Your task to perform on an android device: turn on airplane mode Image 0: 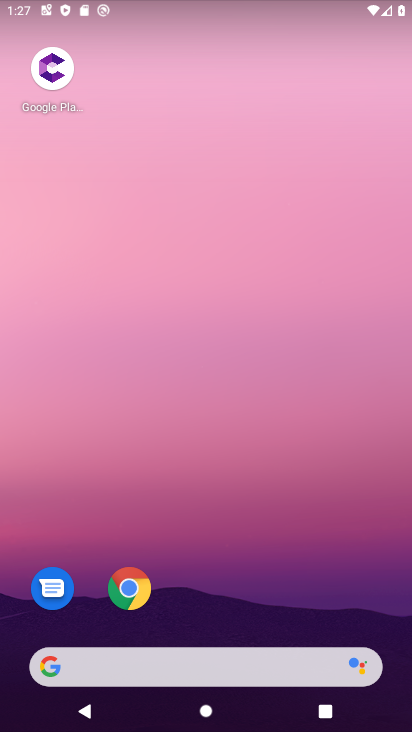
Step 0: drag from (266, 530) to (271, 80)
Your task to perform on an android device: turn on airplane mode Image 1: 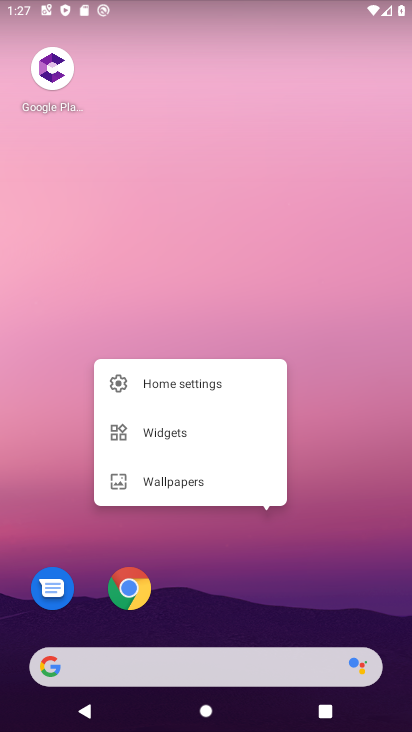
Step 1: click (271, 85)
Your task to perform on an android device: turn on airplane mode Image 2: 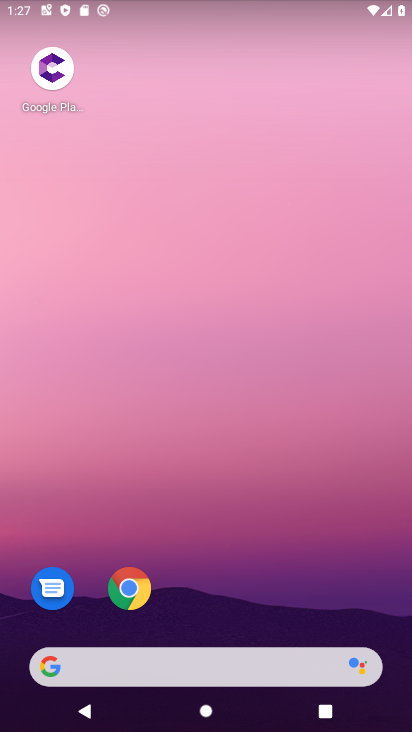
Step 2: drag from (312, 619) to (324, 137)
Your task to perform on an android device: turn on airplane mode Image 3: 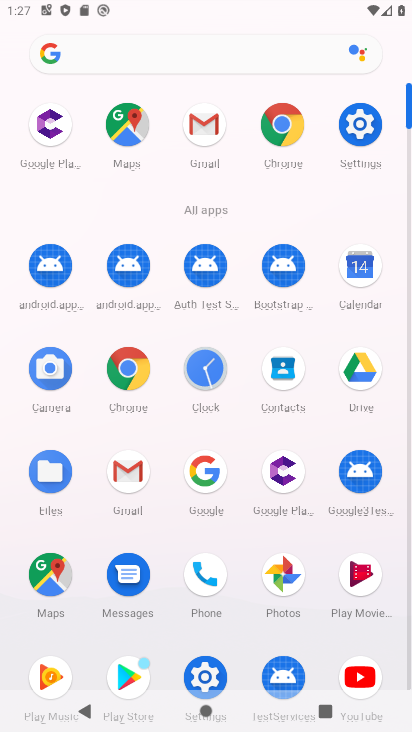
Step 3: click (349, 124)
Your task to perform on an android device: turn on airplane mode Image 4: 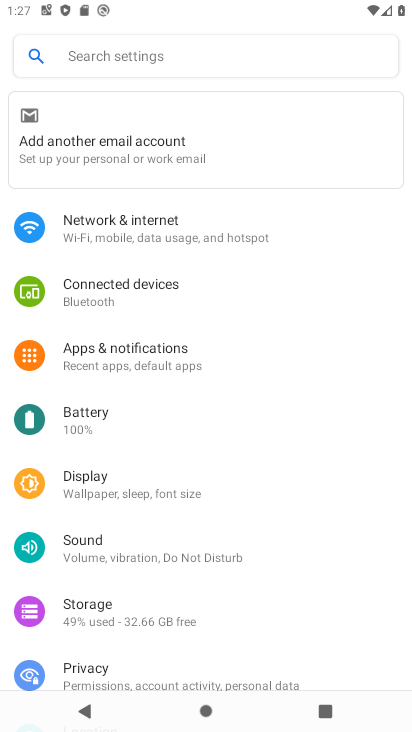
Step 4: click (167, 240)
Your task to perform on an android device: turn on airplane mode Image 5: 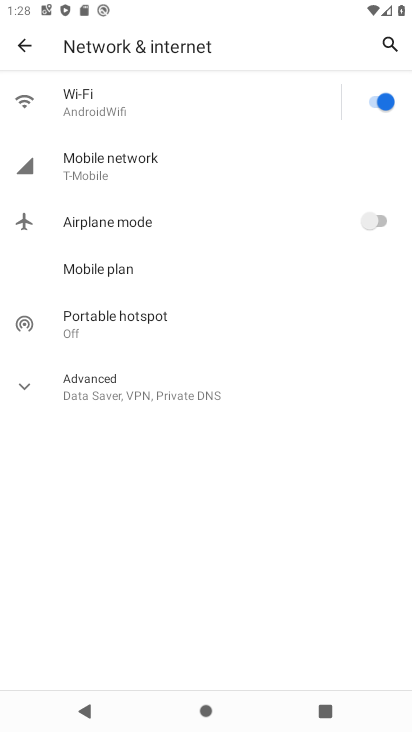
Step 5: click (377, 217)
Your task to perform on an android device: turn on airplane mode Image 6: 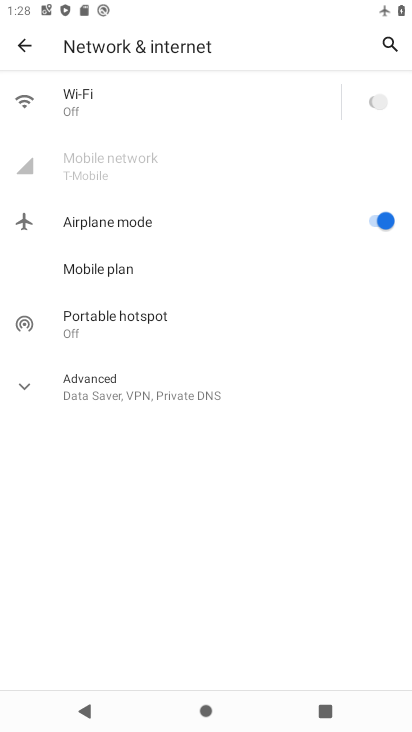
Step 6: task complete